Your task to perform on an android device: open app "Google Chrome" Image 0: 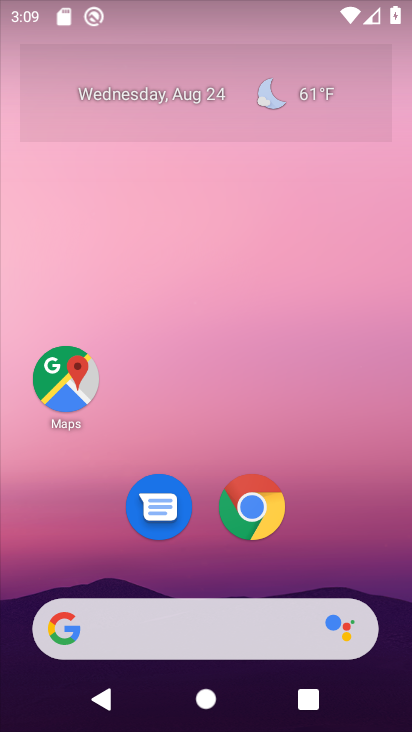
Step 0: click (251, 506)
Your task to perform on an android device: open app "Google Chrome" Image 1: 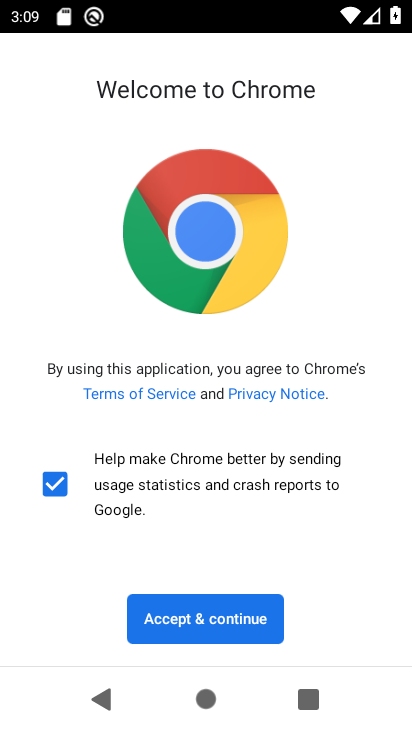
Step 1: click (197, 619)
Your task to perform on an android device: open app "Google Chrome" Image 2: 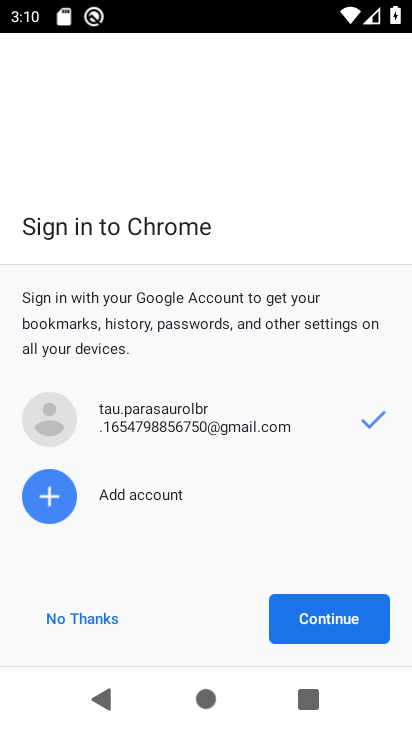
Step 2: click (97, 623)
Your task to perform on an android device: open app "Google Chrome" Image 3: 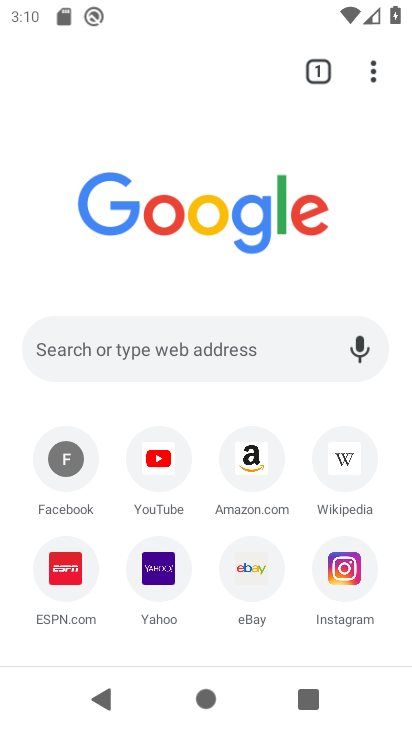
Step 3: task complete